Your task to perform on an android device: toggle location history Image 0: 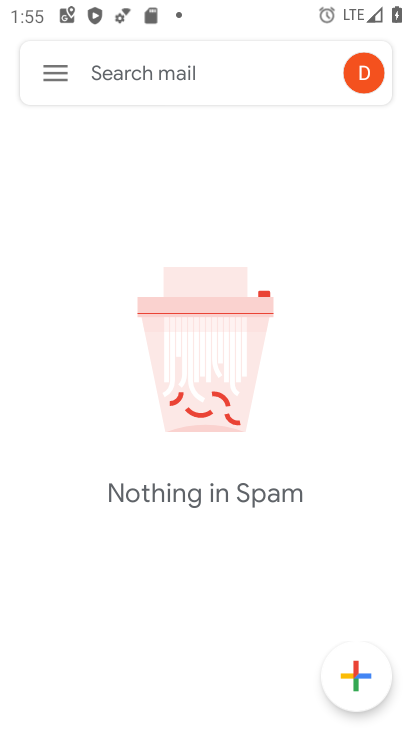
Step 0: press home button
Your task to perform on an android device: toggle location history Image 1: 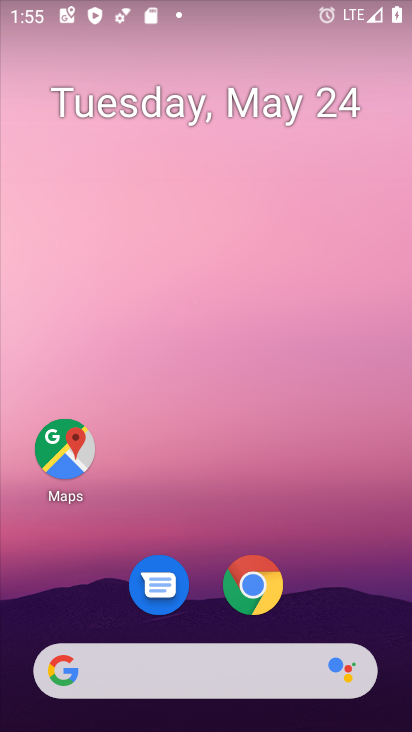
Step 1: drag from (208, 509) to (215, 5)
Your task to perform on an android device: toggle location history Image 2: 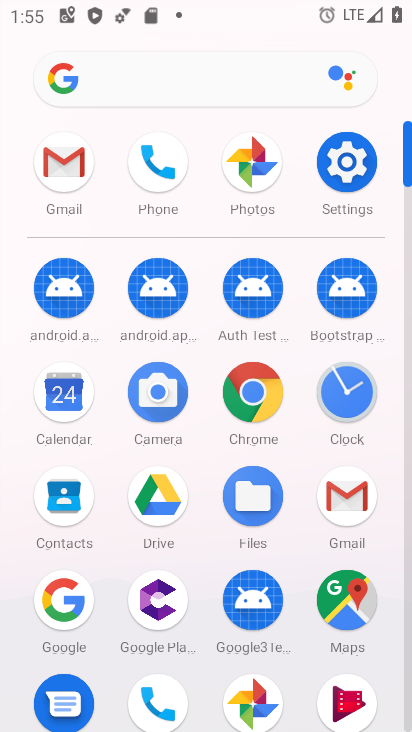
Step 2: click (347, 163)
Your task to perform on an android device: toggle location history Image 3: 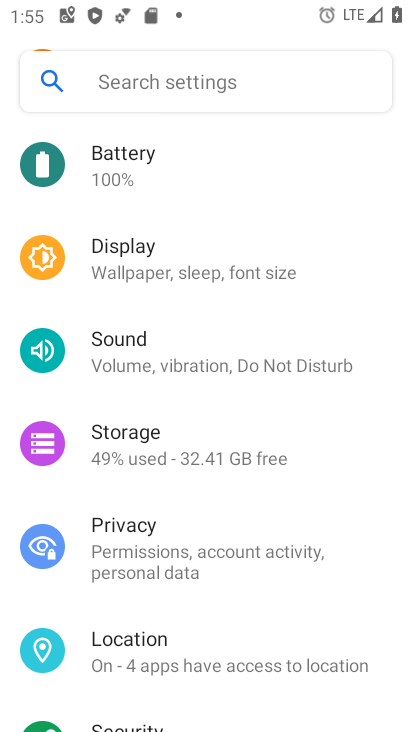
Step 3: click (264, 651)
Your task to perform on an android device: toggle location history Image 4: 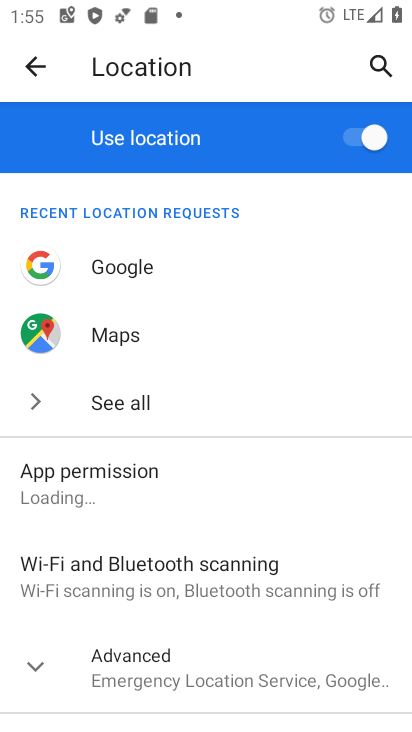
Step 4: drag from (277, 508) to (278, 201)
Your task to perform on an android device: toggle location history Image 5: 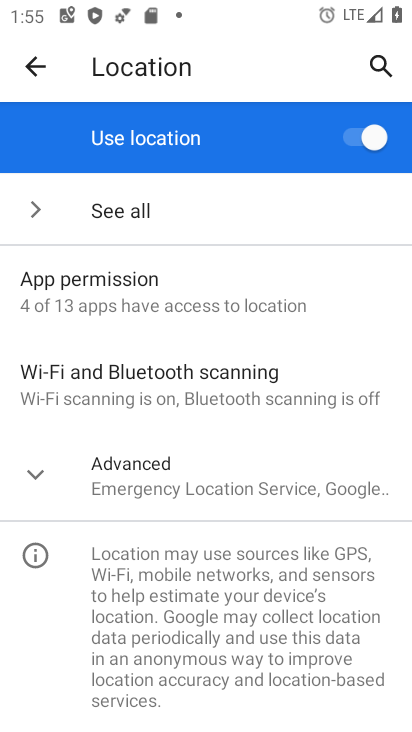
Step 5: click (31, 463)
Your task to perform on an android device: toggle location history Image 6: 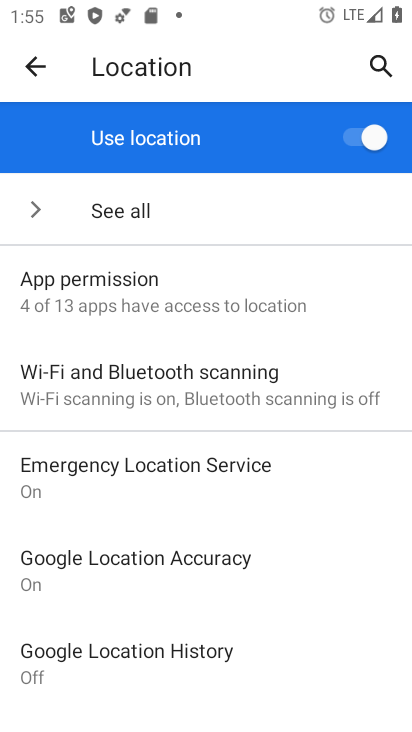
Step 6: click (199, 656)
Your task to perform on an android device: toggle location history Image 7: 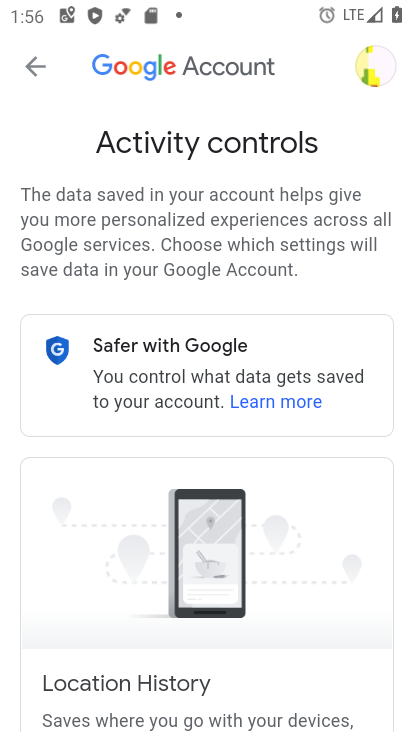
Step 7: drag from (279, 489) to (290, 86)
Your task to perform on an android device: toggle location history Image 8: 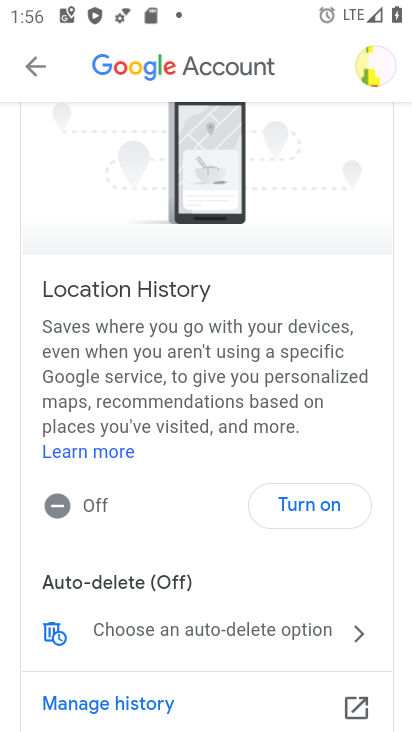
Step 8: click (321, 498)
Your task to perform on an android device: toggle location history Image 9: 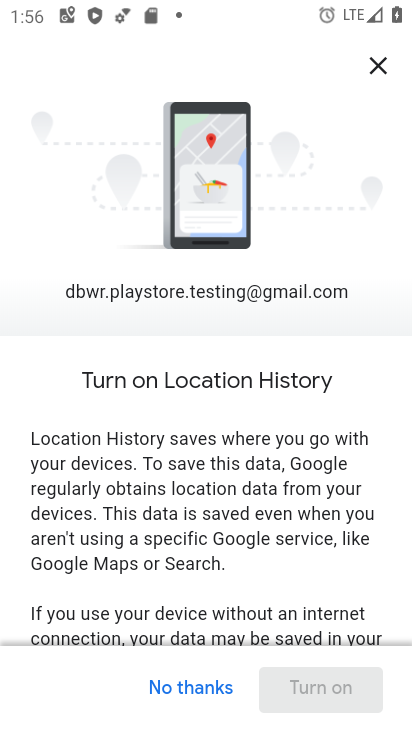
Step 9: drag from (326, 536) to (309, 58)
Your task to perform on an android device: toggle location history Image 10: 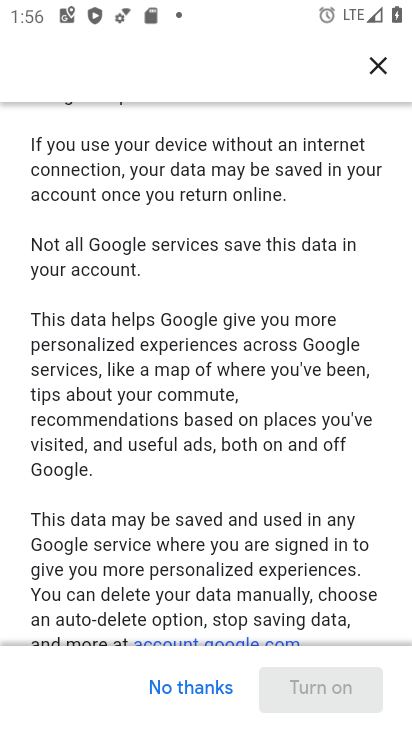
Step 10: drag from (290, 522) to (297, 251)
Your task to perform on an android device: toggle location history Image 11: 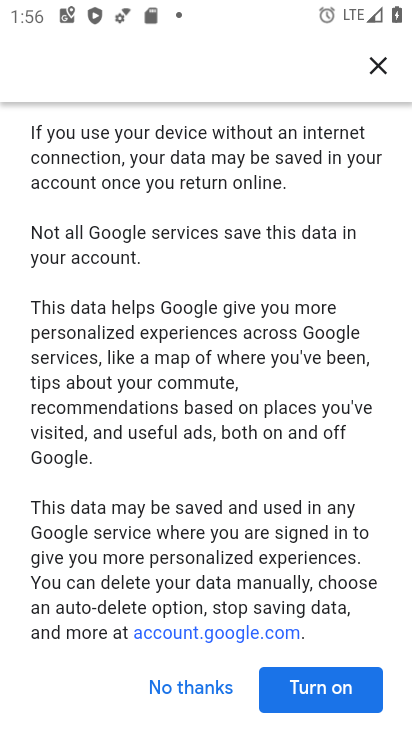
Step 11: click (310, 692)
Your task to perform on an android device: toggle location history Image 12: 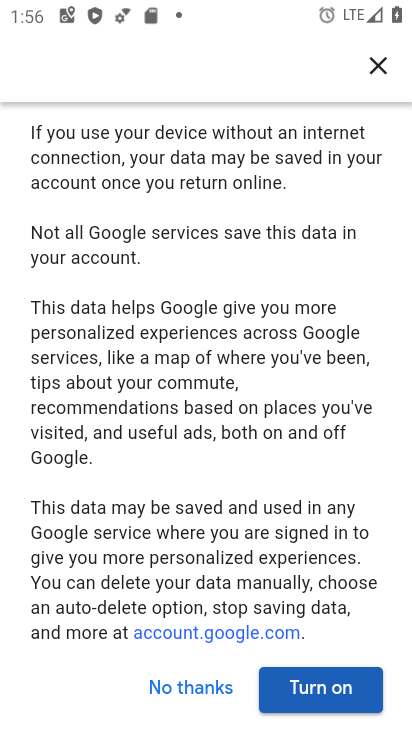
Step 12: click (310, 694)
Your task to perform on an android device: toggle location history Image 13: 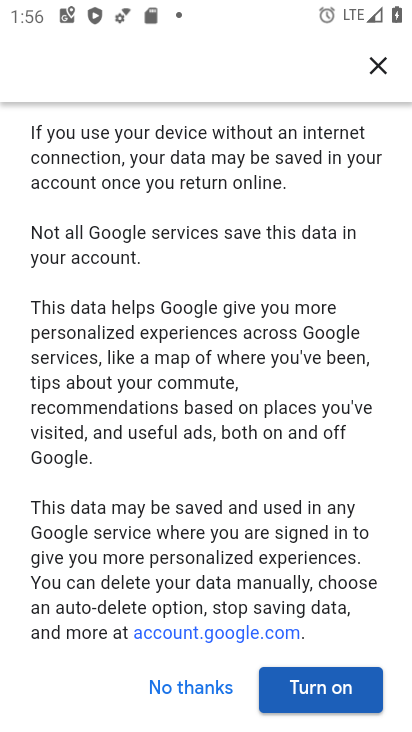
Step 13: click (320, 683)
Your task to perform on an android device: toggle location history Image 14: 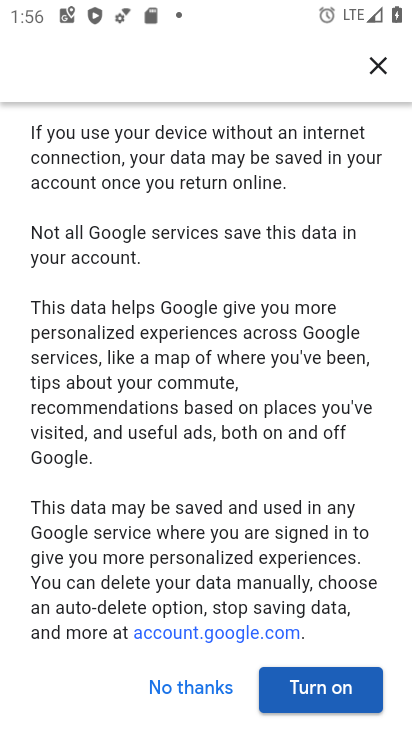
Step 14: click (320, 683)
Your task to perform on an android device: toggle location history Image 15: 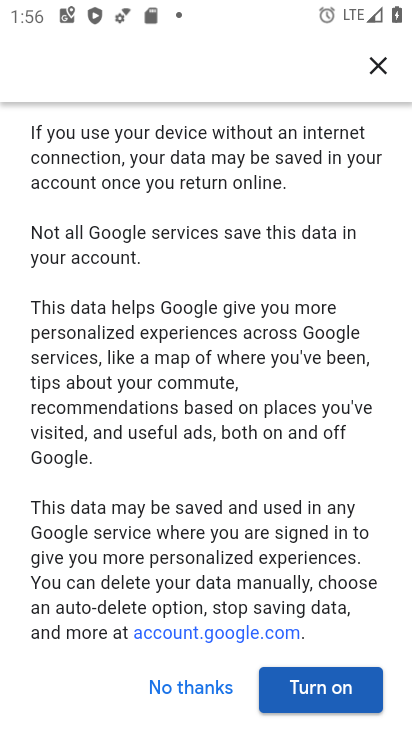
Step 15: click (321, 689)
Your task to perform on an android device: toggle location history Image 16: 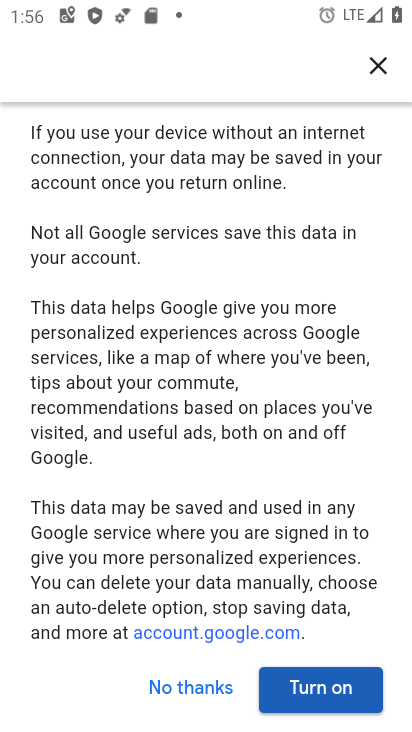
Step 16: click (345, 688)
Your task to perform on an android device: toggle location history Image 17: 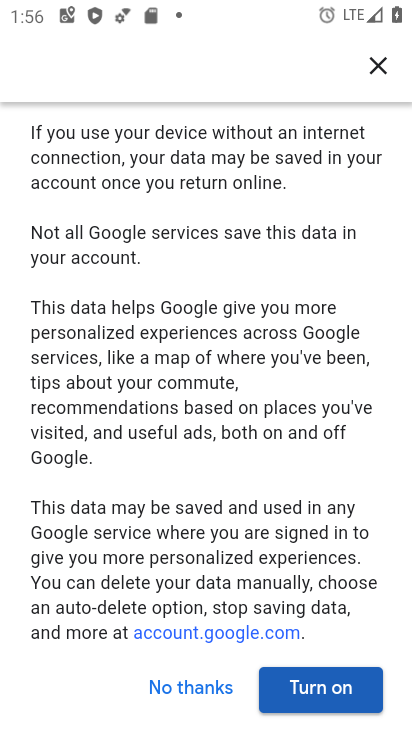
Step 17: click (343, 685)
Your task to perform on an android device: toggle location history Image 18: 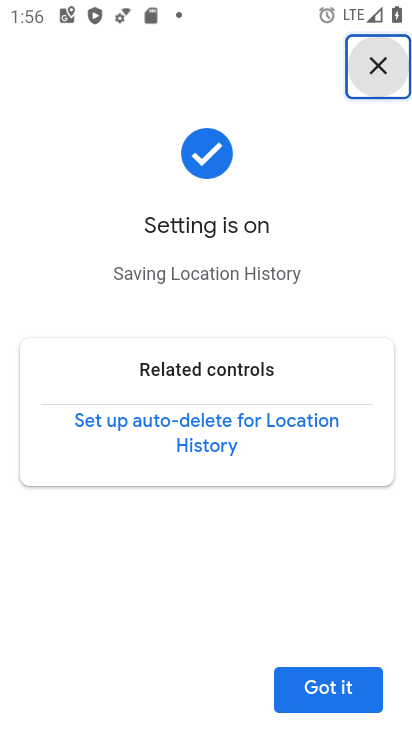
Step 18: click (343, 688)
Your task to perform on an android device: toggle location history Image 19: 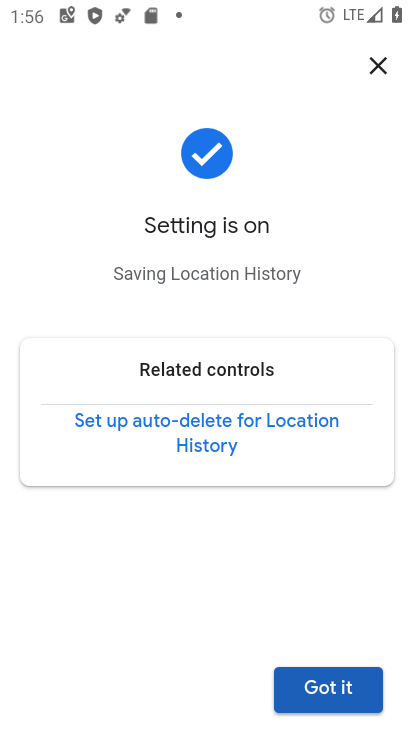
Step 19: click (343, 688)
Your task to perform on an android device: toggle location history Image 20: 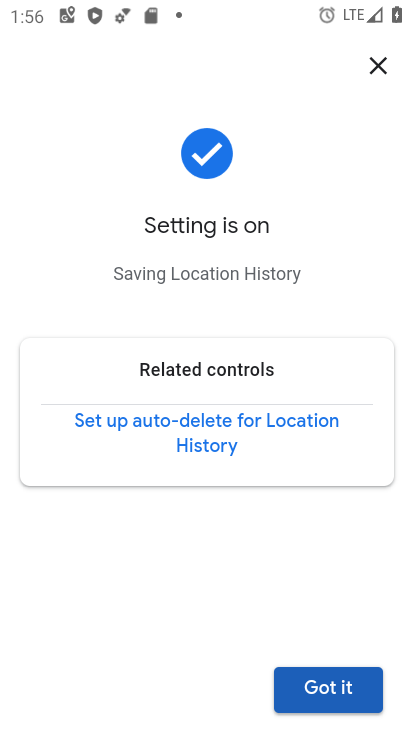
Step 20: click (343, 688)
Your task to perform on an android device: toggle location history Image 21: 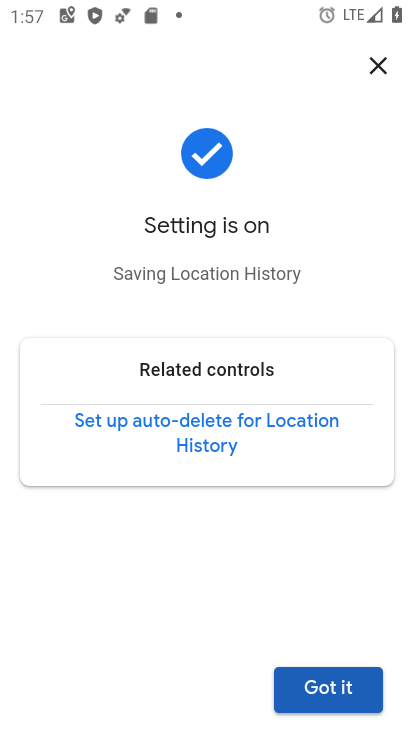
Step 21: click (343, 690)
Your task to perform on an android device: toggle location history Image 22: 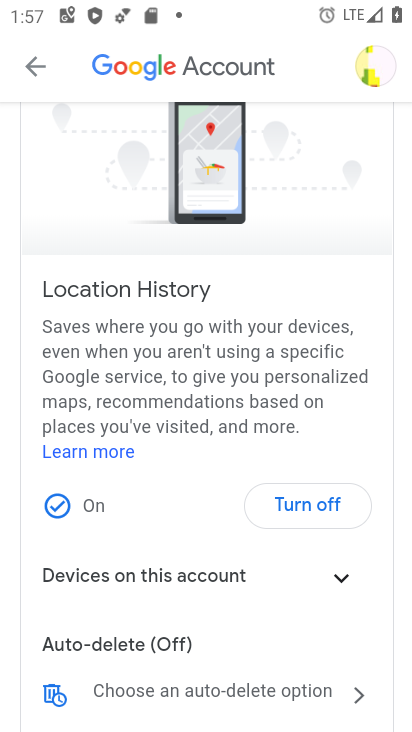
Step 22: task complete